Your task to perform on an android device: Search for seafood restaurants on Google Maps Image 0: 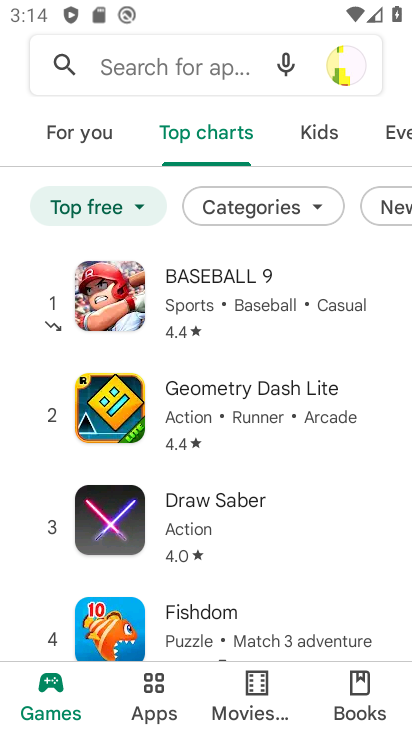
Step 0: press home button
Your task to perform on an android device: Search for seafood restaurants on Google Maps Image 1: 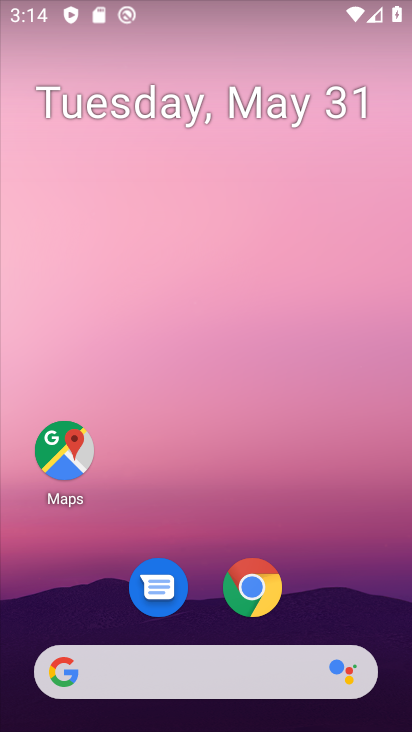
Step 1: click (68, 459)
Your task to perform on an android device: Search for seafood restaurants on Google Maps Image 2: 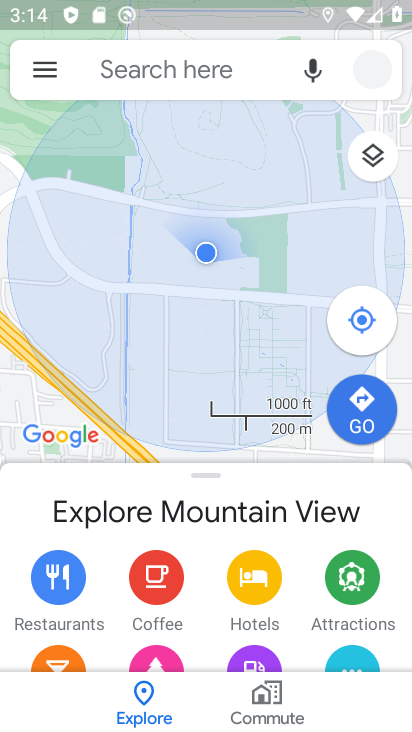
Step 2: click (170, 79)
Your task to perform on an android device: Search for seafood restaurants on Google Maps Image 3: 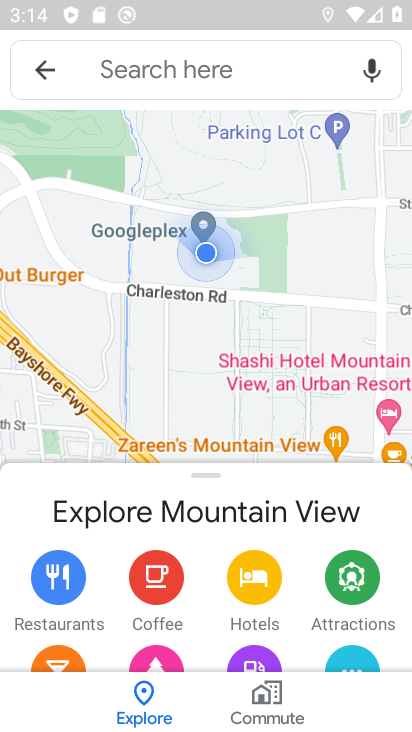
Step 3: click (186, 65)
Your task to perform on an android device: Search for seafood restaurants on Google Maps Image 4: 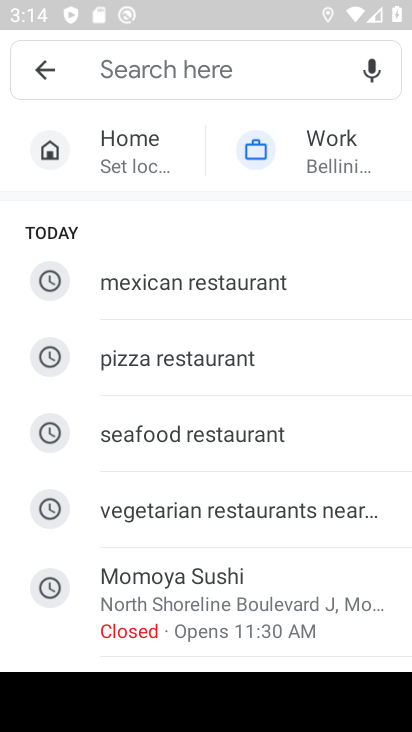
Step 4: type "seafood restaurants"
Your task to perform on an android device: Search for seafood restaurants on Google Maps Image 5: 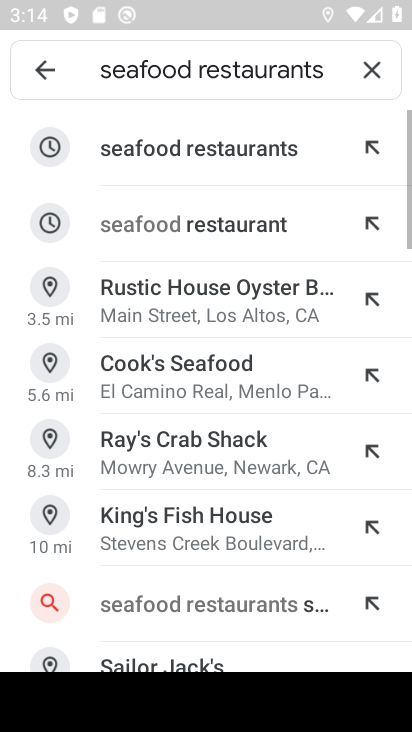
Step 5: click (203, 158)
Your task to perform on an android device: Search for seafood restaurants on Google Maps Image 6: 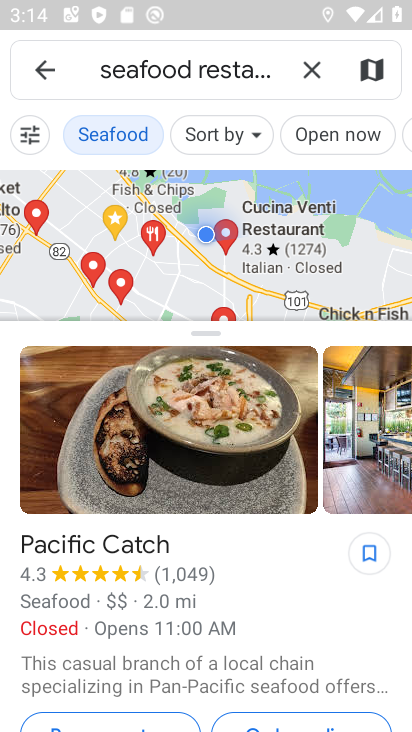
Step 6: task complete